Your task to perform on an android device: Open notification settings Image 0: 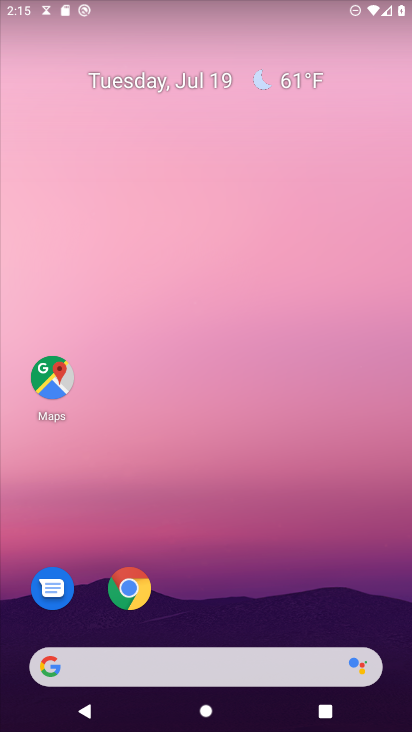
Step 0: drag from (318, 691) to (177, 89)
Your task to perform on an android device: Open notification settings Image 1: 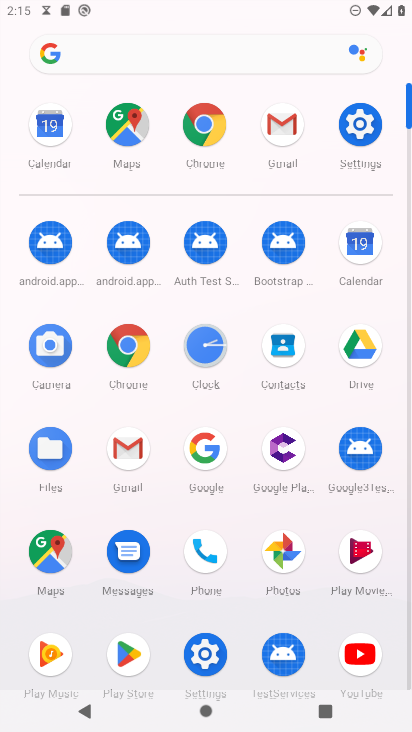
Step 1: click (351, 132)
Your task to perform on an android device: Open notification settings Image 2: 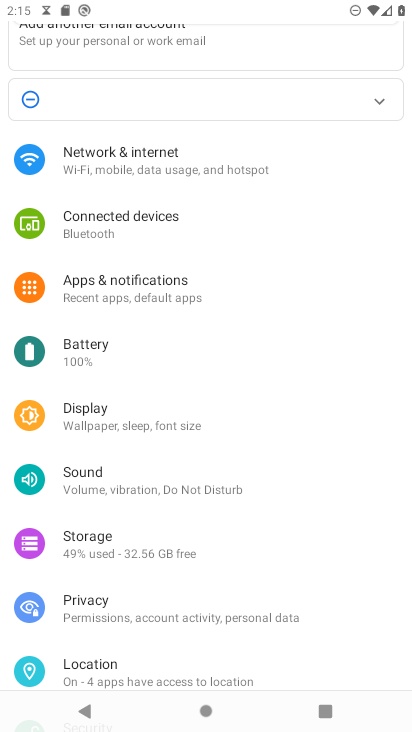
Step 2: click (149, 175)
Your task to perform on an android device: Open notification settings Image 3: 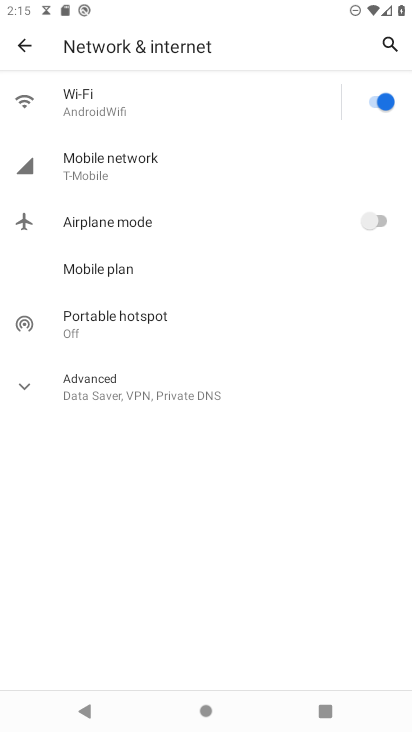
Step 3: click (64, 384)
Your task to perform on an android device: Open notification settings Image 4: 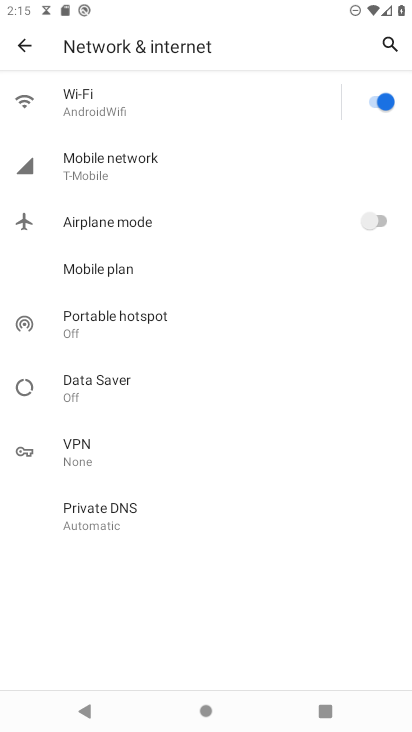
Step 4: click (24, 45)
Your task to perform on an android device: Open notification settings Image 5: 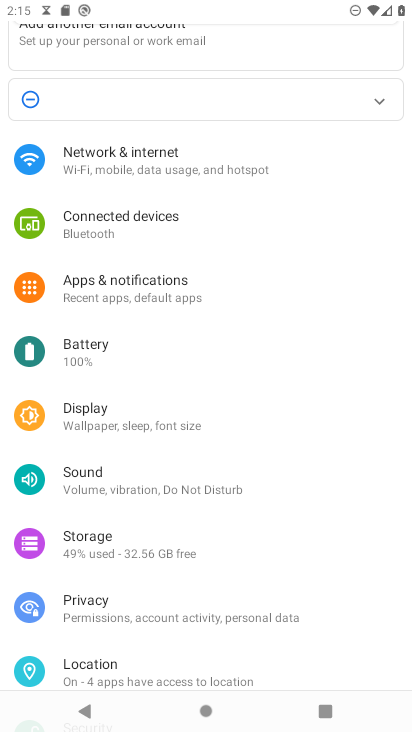
Step 5: drag from (131, 60) to (138, 142)
Your task to perform on an android device: Open notification settings Image 6: 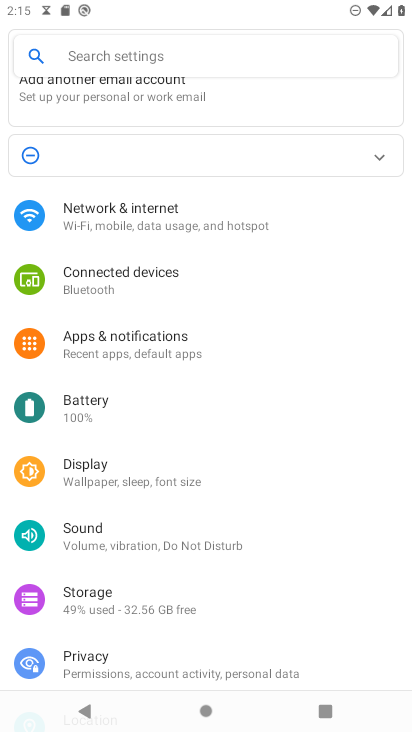
Step 6: click (128, 51)
Your task to perform on an android device: Open notification settings Image 7: 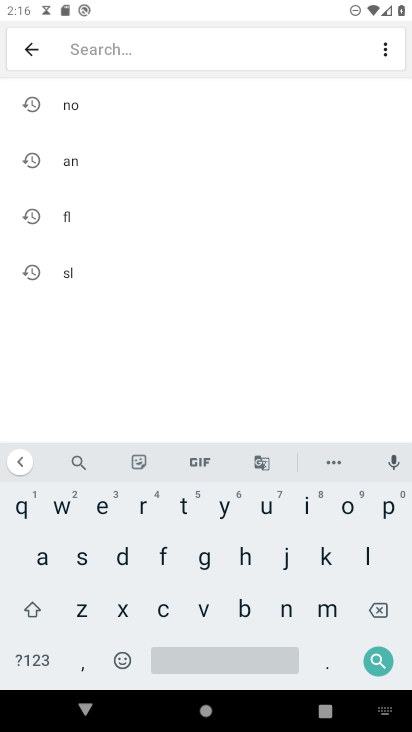
Step 7: click (96, 113)
Your task to perform on an android device: Open notification settings Image 8: 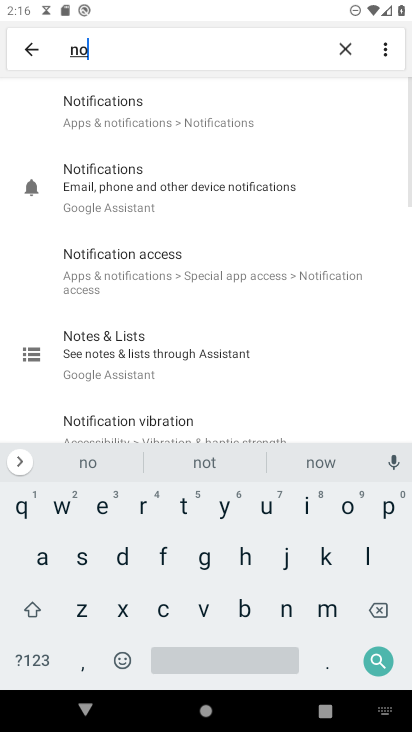
Step 8: click (96, 113)
Your task to perform on an android device: Open notification settings Image 9: 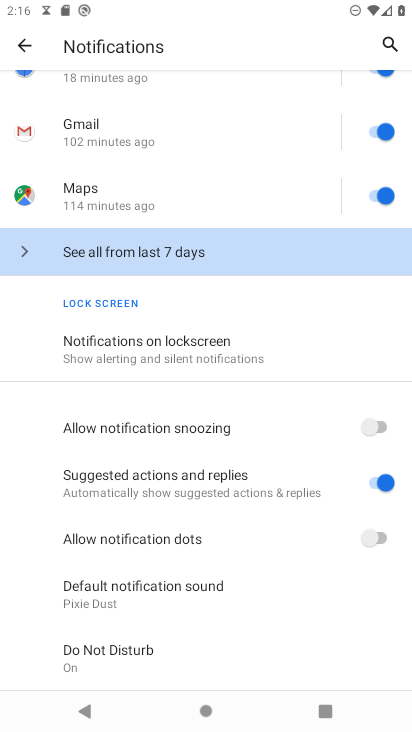
Step 9: click (146, 336)
Your task to perform on an android device: Open notification settings Image 10: 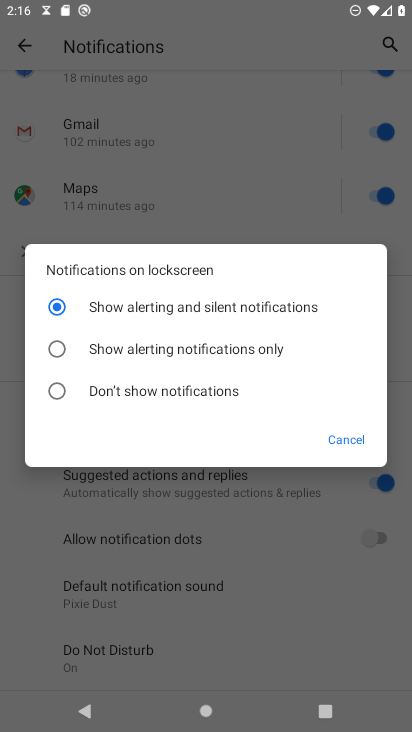
Step 10: task complete